Your task to perform on an android device: Open settings on Google Maps Image 0: 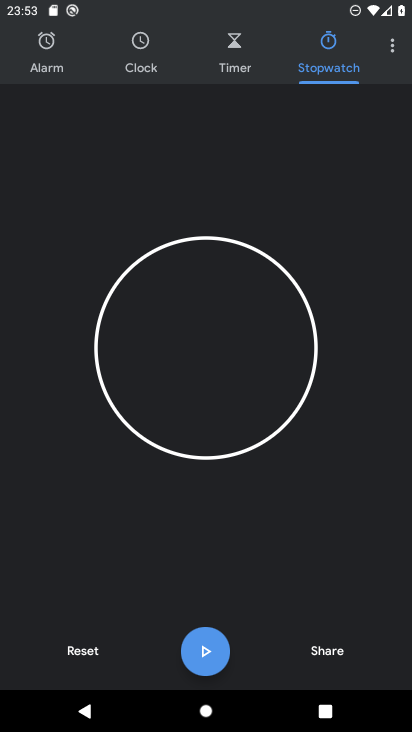
Step 0: press home button
Your task to perform on an android device: Open settings on Google Maps Image 1: 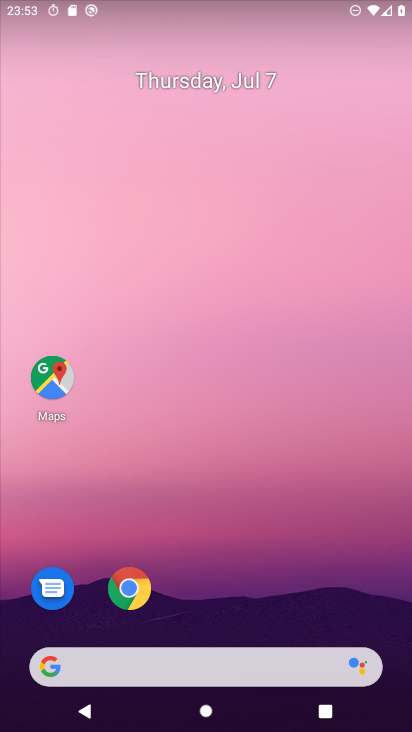
Step 1: drag from (288, 580) to (299, 104)
Your task to perform on an android device: Open settings on Google Maps Image 2: 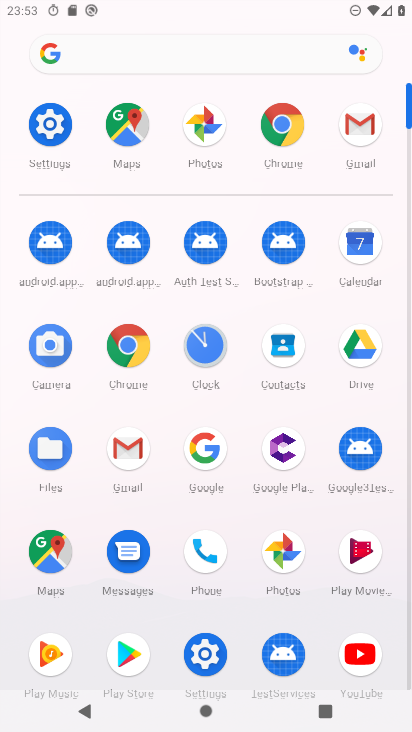
Step 2: click (132, 129)
Your task to perform on an android device: Open settings on Google Maps Image 3: 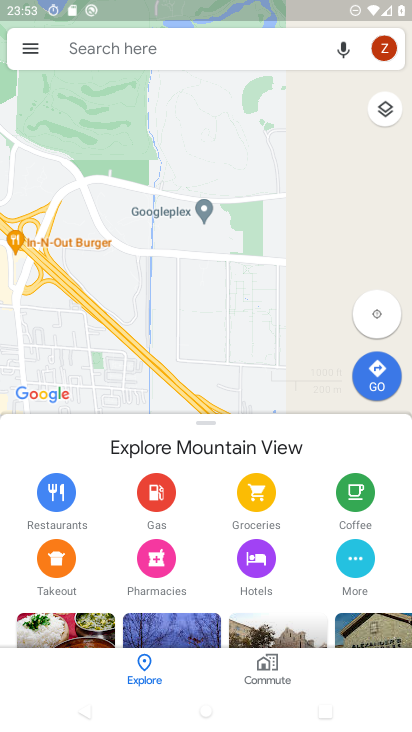
Step 3: click (30, 42)
Your task to perform on an android device: Open settings on Google Maps Image 4: 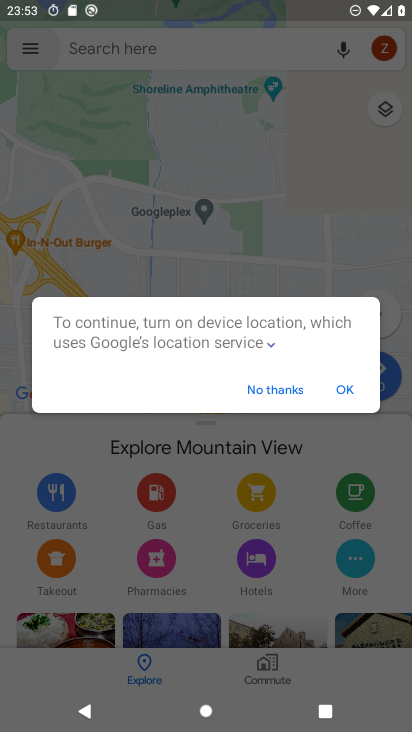
Step 4: click (292, 389)
Your task to perform on an android device: Open settings on Google Maps Image 5: 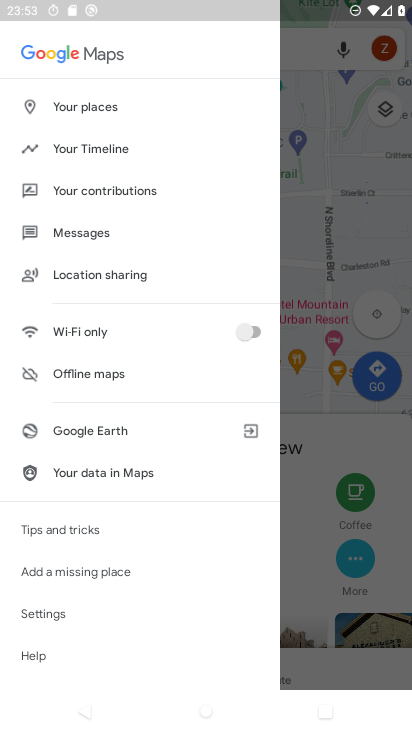
Step 5: click (64, 611)
Your task to perform on an android device: Open settings on Google Maps Image 6: 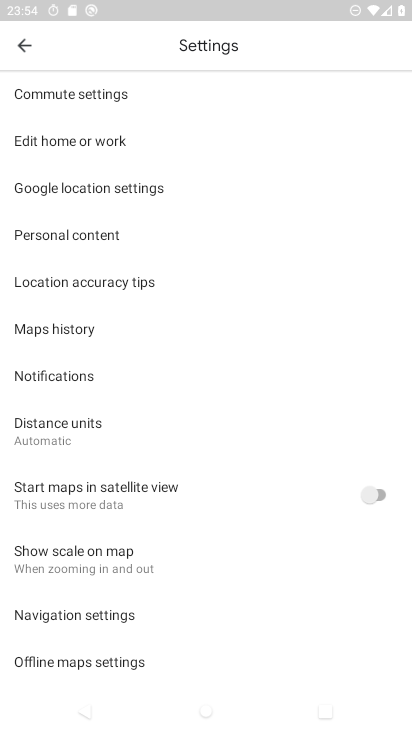
Step 6: task complete